Your task to perform on an android device: see tabs open on other devices in the chrome app Image 0: 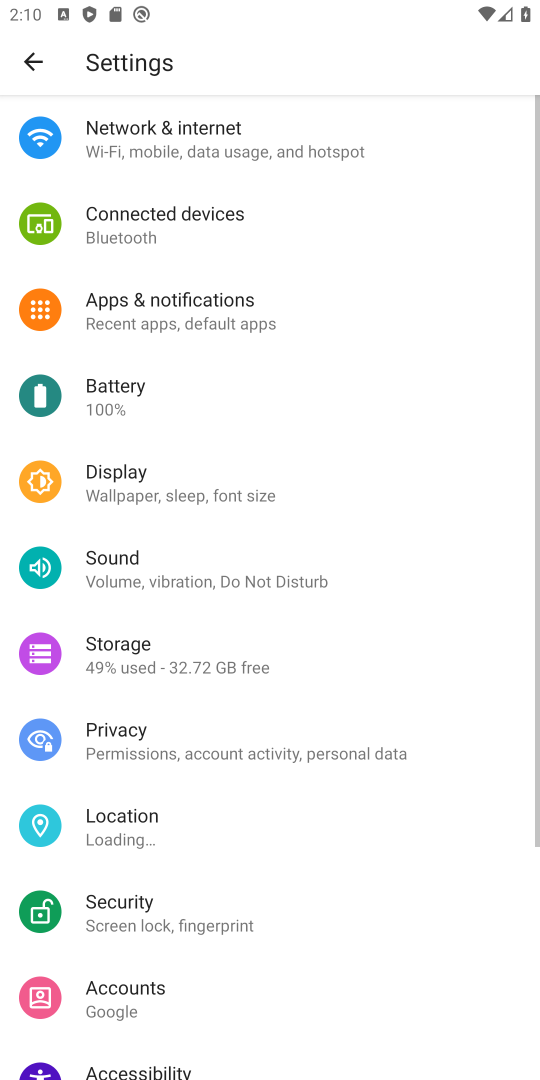
Step 0: press home button
Your task to perform on an android device: see tabs open on other devices in the chrome app Image 1: 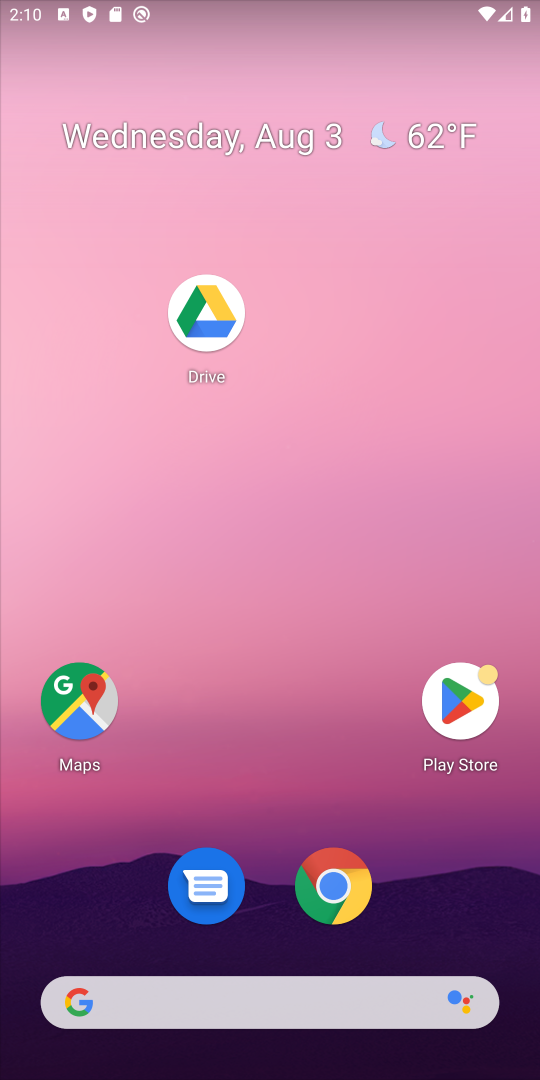
Step 1: drag from (300, 612) to (236, 12)
Your task to perform on an android device: see tabs open on other devices in the chrome app Image 2: 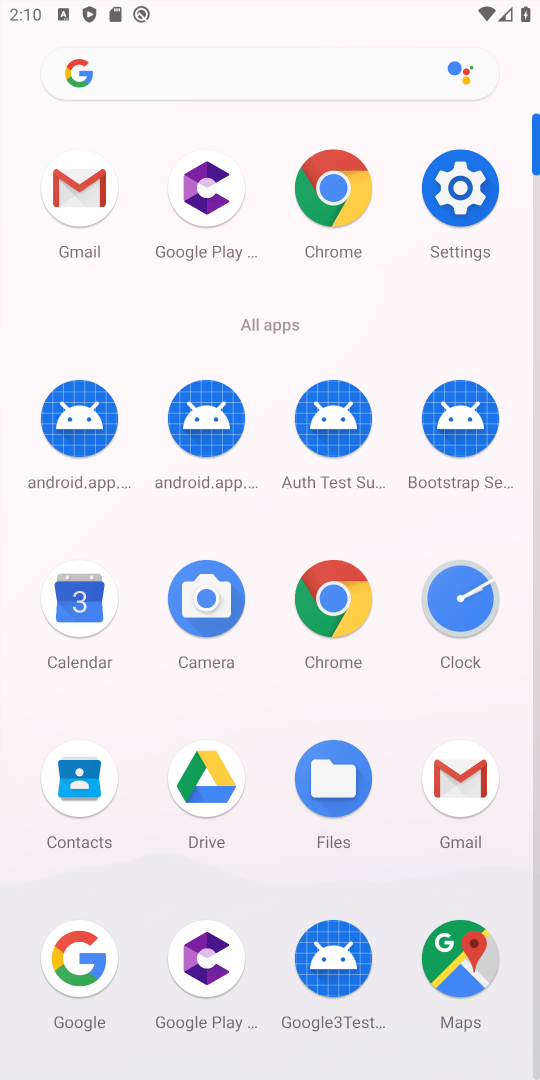
Step 2: click (333, 606)
Your task to perform on an android device: see tabs open on other devices in the chrome app Image 3: 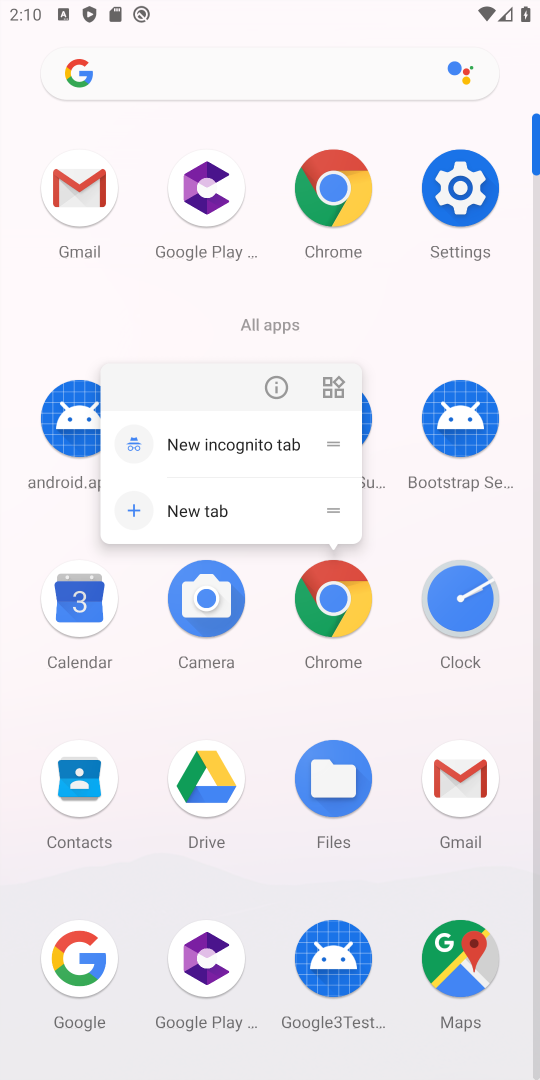
Step 3: click (333, 606)
Your task to perform on an android device: see tabs open on other devices in the chrome app Image 4: 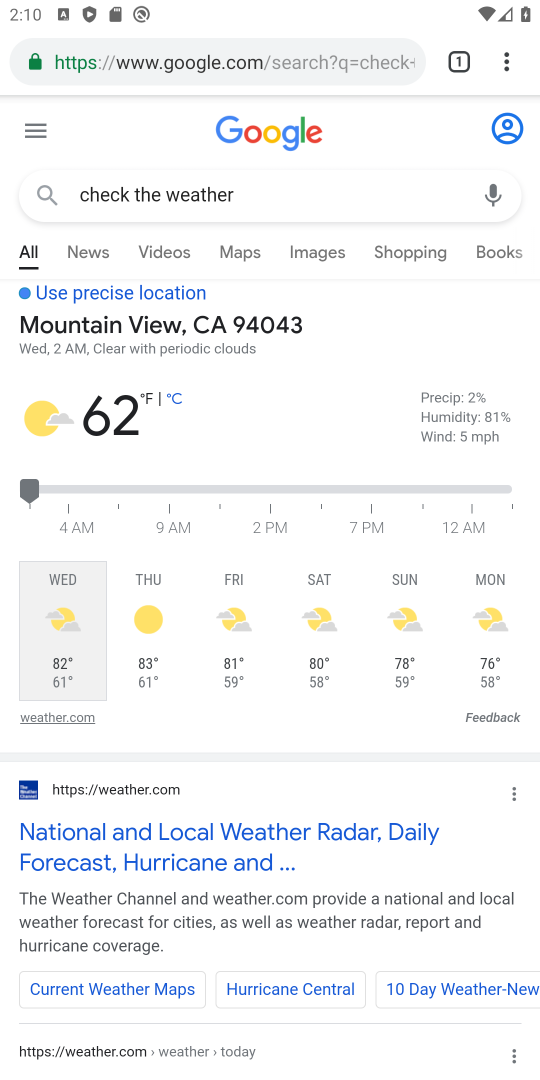
Step 4: drag from (507, 47) to (359, 300)
Your task to perform on an android device: see tabs open on other devices in the chrome app Image 5: 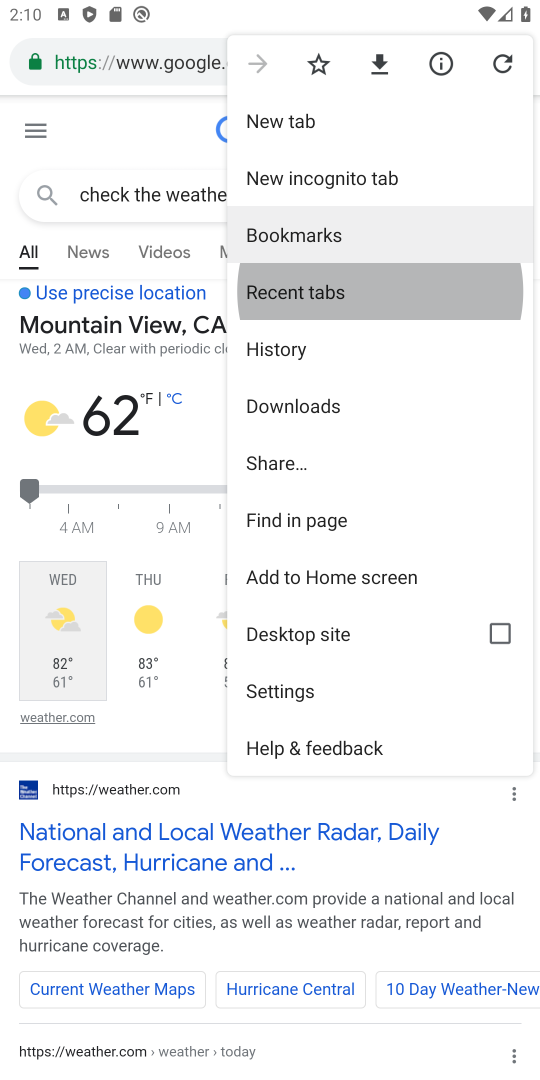
Step 5: click (339, 305)
Your task to perform on an android device: see tabs open on other devices in the chrome app Image 6: 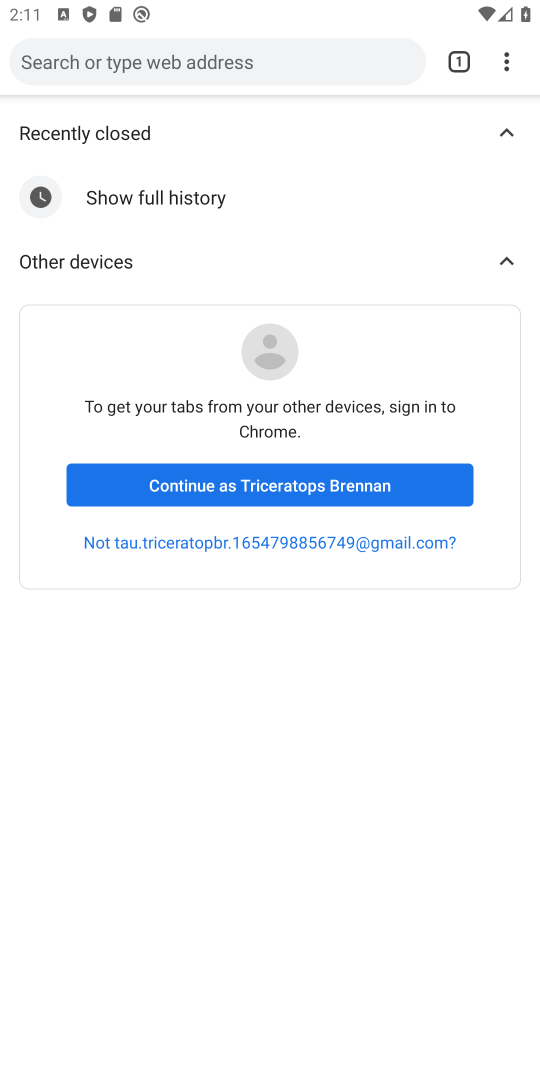
Step 6: task complete